Your task to perform on an android device: Open Youtube and go to "Your channel" Image 0: 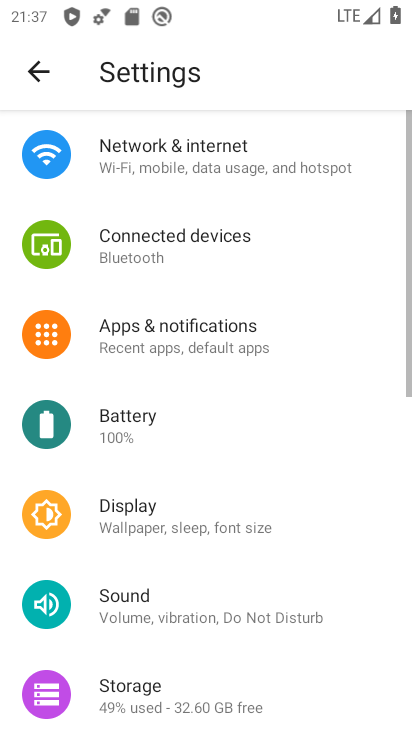
Step 0: press enter
Your task to perform on an android device: Open Youtube and go to "Your channel" Image 1: 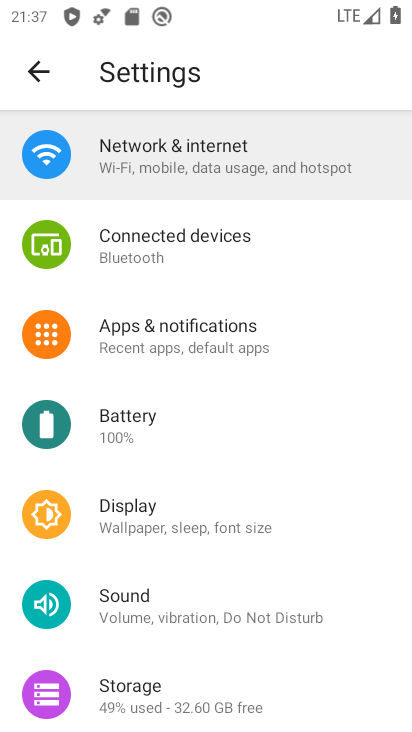
Step 1: press enter
Your task to perform on an android device: Open Youtube and go to "Your channel" Image 2: 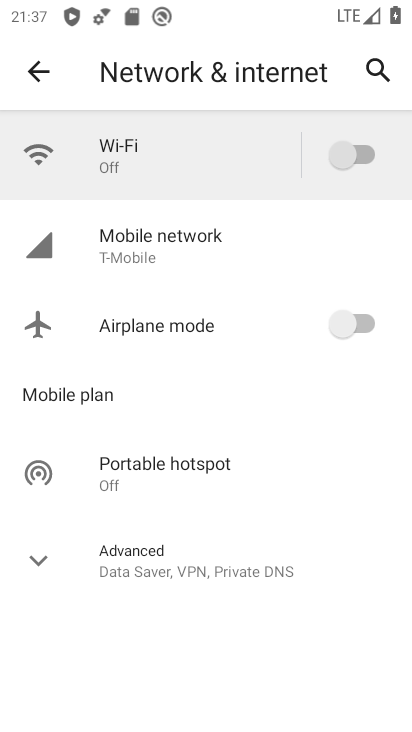
Step 2: press home button
Your task to perform on an android device: Open Youtube and go to "Your channel" Image 3: 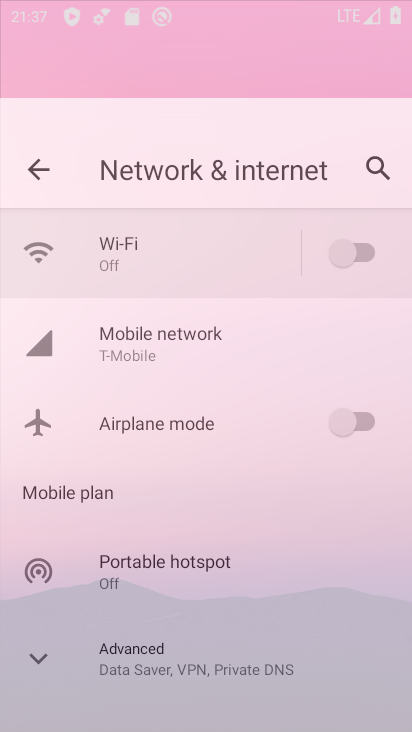
Step 3: press home button
Your task to perform on an android device: Open Youtube and go to "Your channel" Image 4: 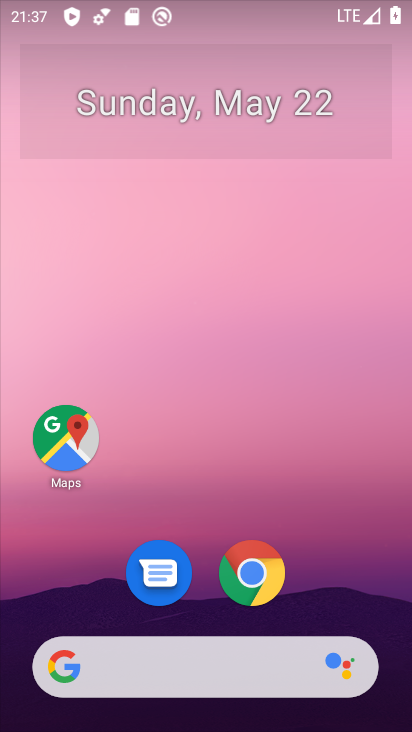
Step 4: drag from (395, 678) to (253, 125)
Your task to perform on an android device: Open Youtube and go to "Your channel" Image 5: 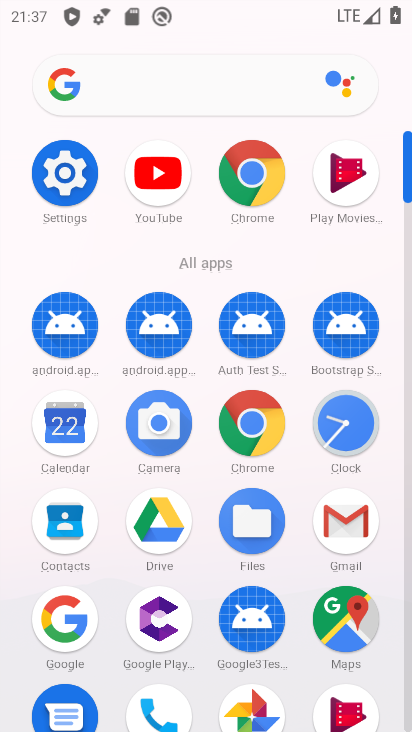
Step 5: click (157, 193)
Your task to perform on an android device: Open Youtube and go to "Your channel" Image 6: 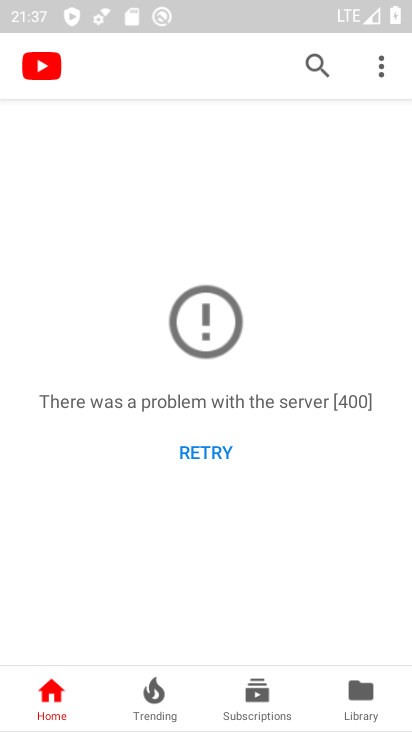
Step 6: task complete